Your task to perform on an android device: Is it going to rain today? Image 0: 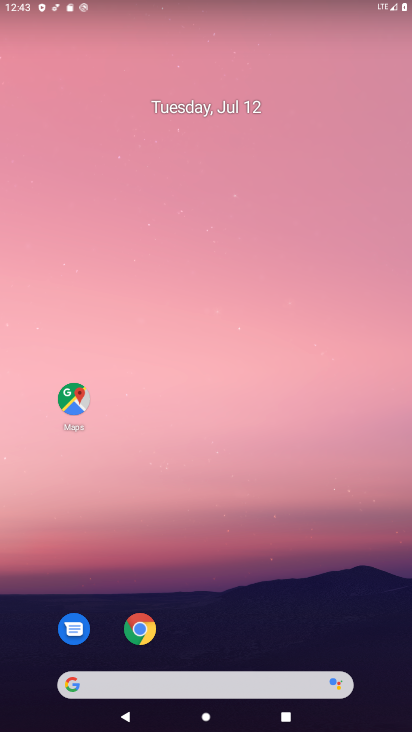
Step 0: click (115, 680)
Your task to perform on an android device: Is it going to rain today? Image 1: 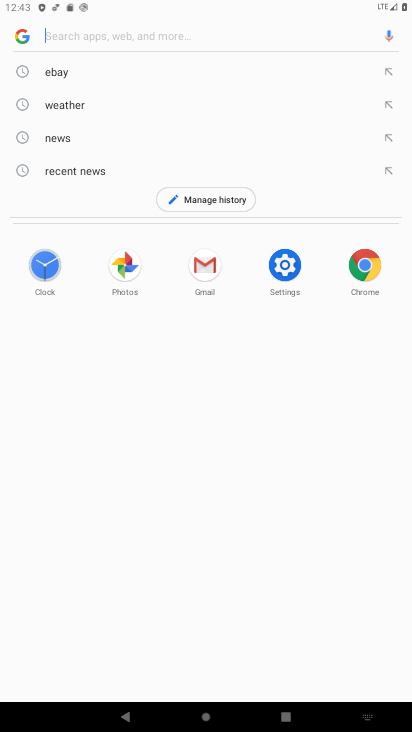
Step 1: type "Is it going to rain today?"
Your task to perform on an android device: Is it going to rain today? Image 2: 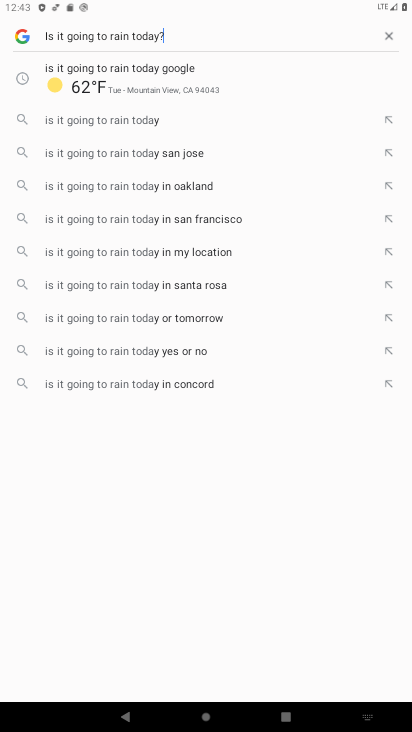
Step 2: type ""
Your task to perform on an android device: Is it going to rain today? Image 3: 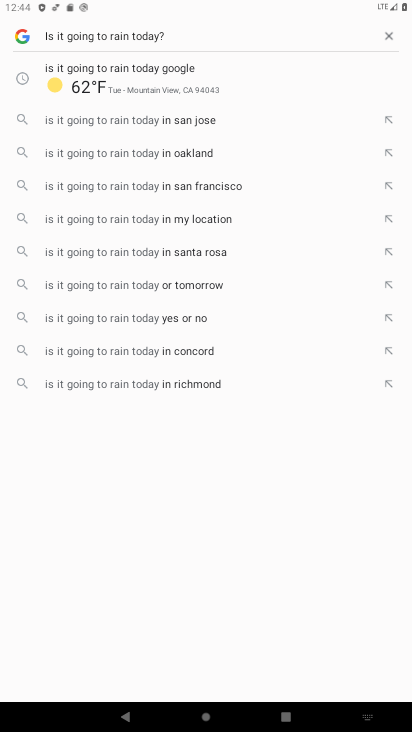
Step 3: task complete